Your task to perform on an android device: Open sound settings Image 0: 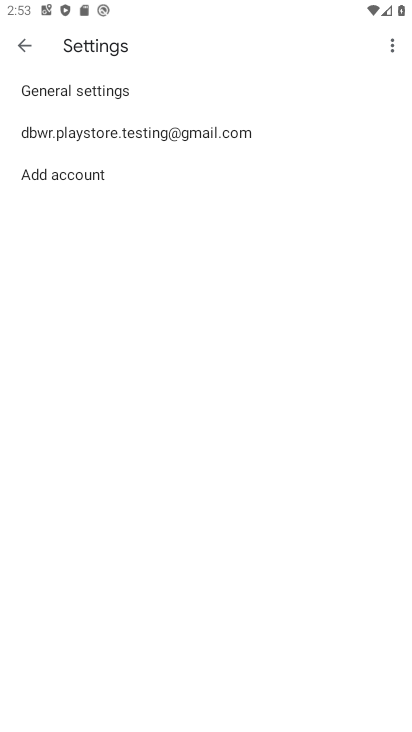
Step 0: press home button
Your task to perform on an android device: Open sound settings Image 1: 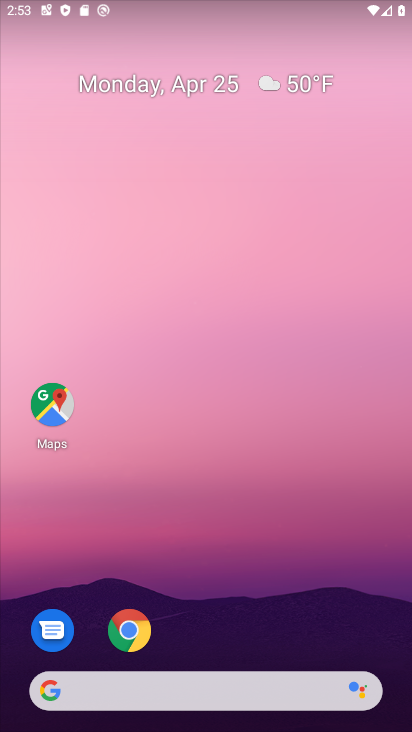
Step 1: drag from (117, 425) to (49, 76)
Your task to perform on an android device: Open sound settings Image 2: 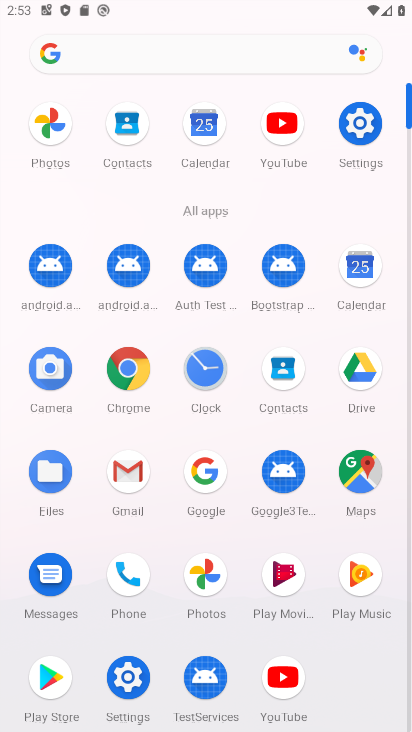
Step 2: click (365, 120)
Your task to perform on an android device: Open sound settings Image 3: 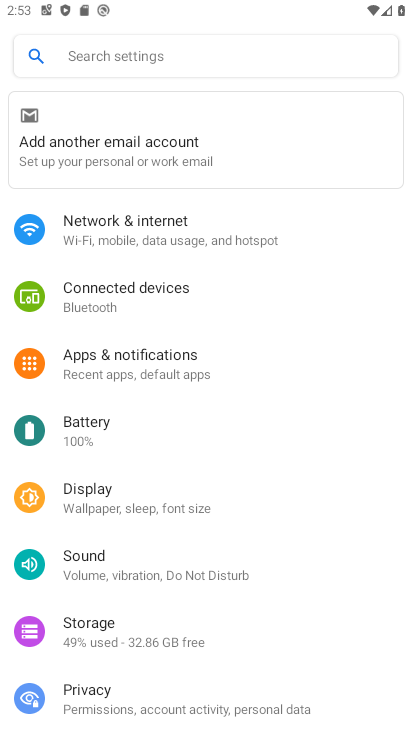
Step 3: click (116, 570)
Your task to perform on an android device: Open sound settings Image 4: 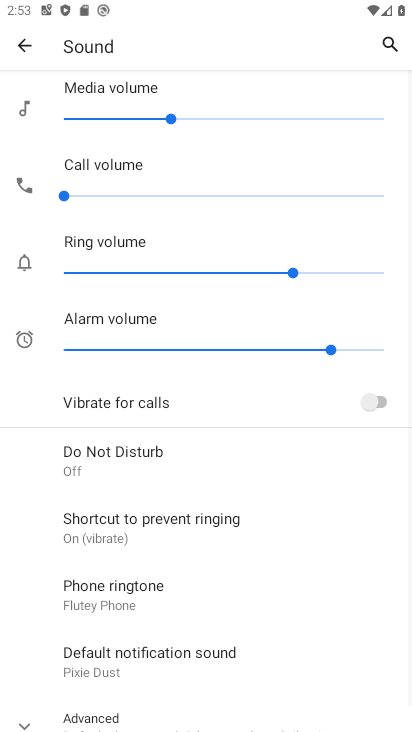
Step 4: drag from (163, 645) to (152, 284)
Your task to perform on an android device: Open sound settings Image 5: 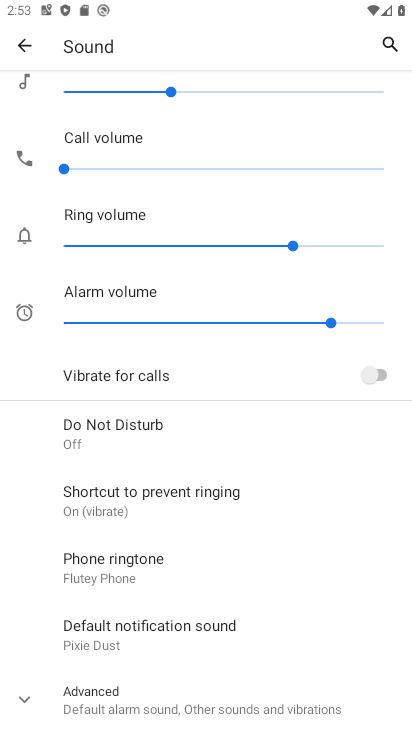
Step 5: click (82, 700)
Your task to perform on an android device: Open sound settings Image 6: 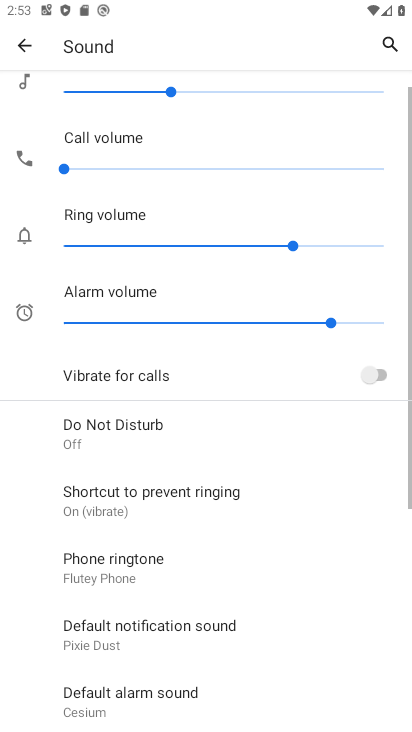
Step 6: task complete